Your task to perform on an android device: open app "Roku - Official Remote Control" Image 0: 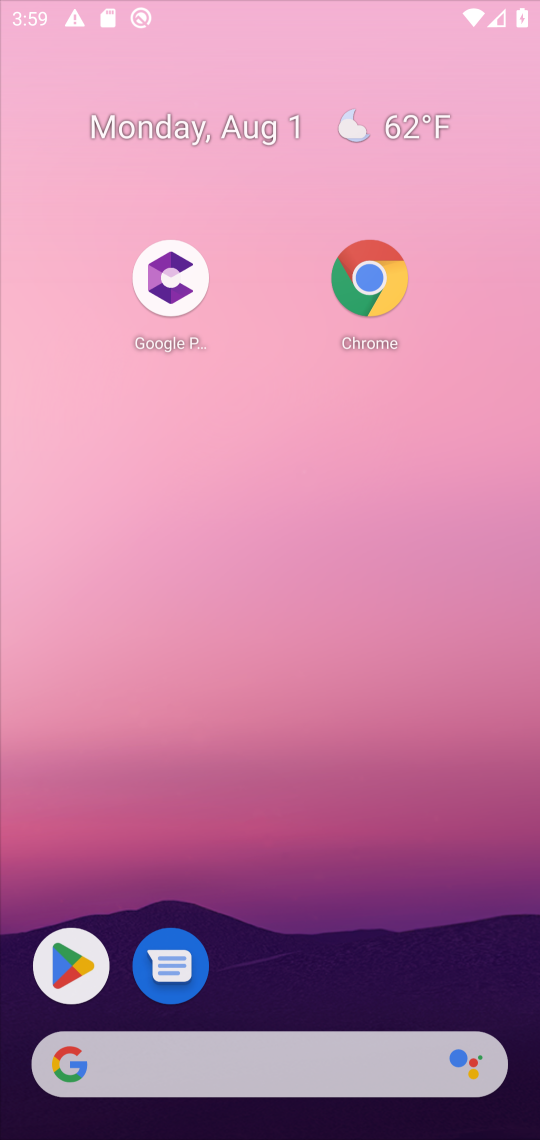
Step 0: click (454, 515)
Your task to perform on an android device: open app "Roku - Official Remote Control" Image 1: 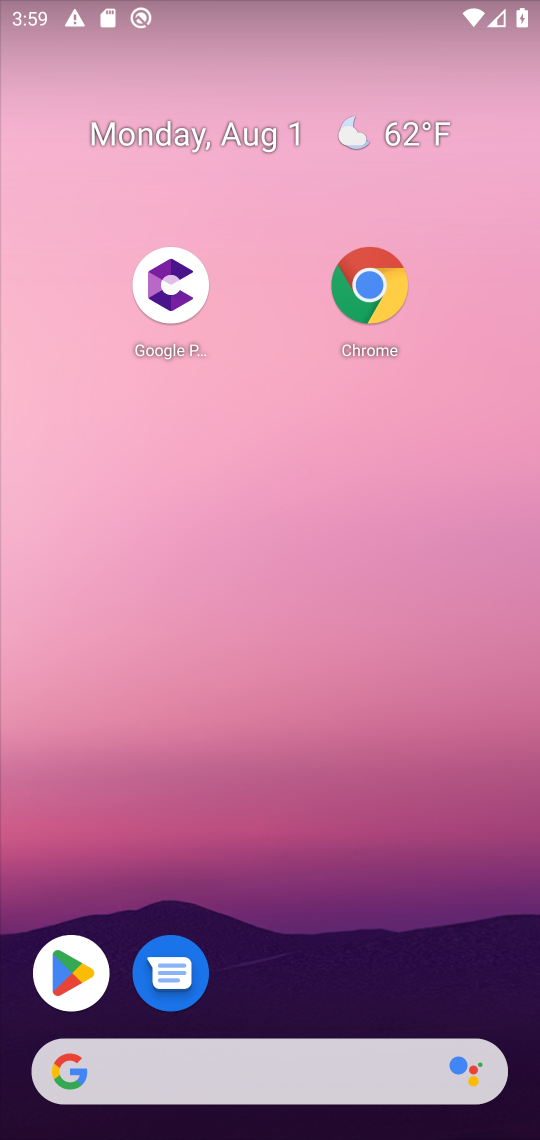
Step 1: drag from (291, 730) to (306, 290)
Your task to perform on an android device: open app "Roku - Official Remote Control" Image 2: 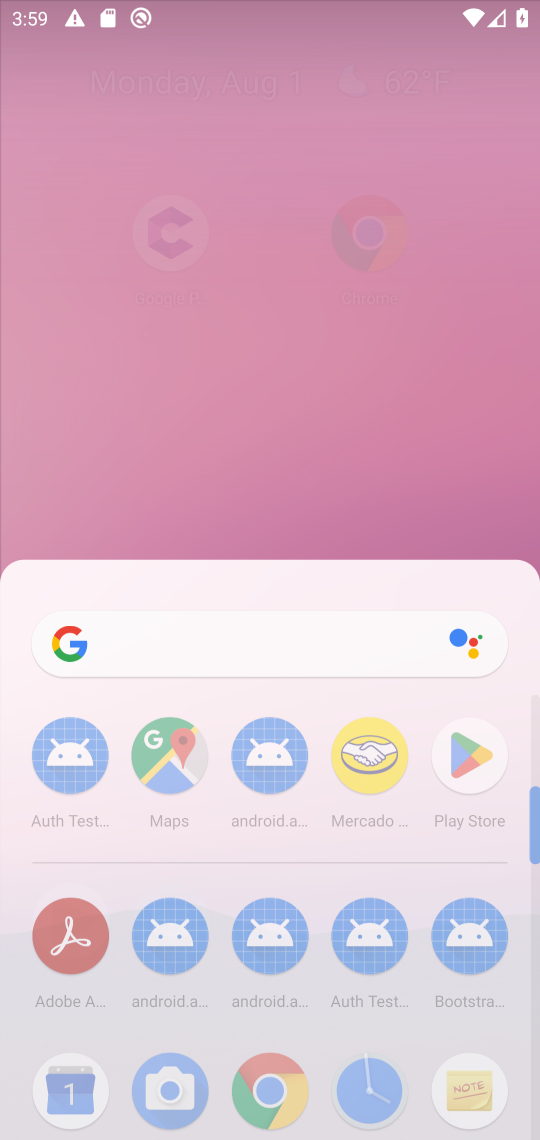
Step 2: click (243, 295)
Your task to perform on an android device: open app "Roku - Official Remote Control" Image 3: 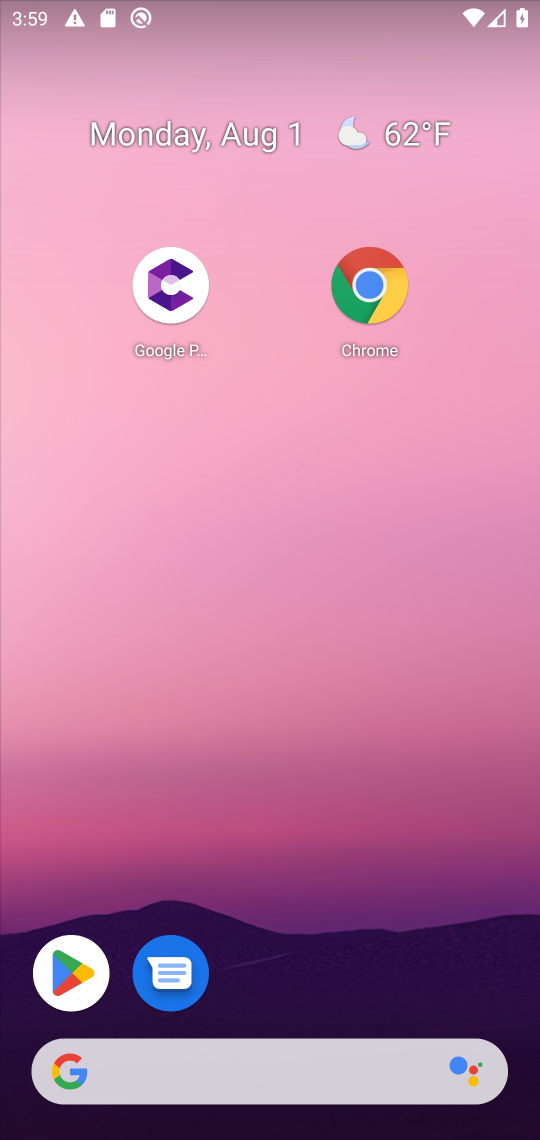
Step 3: drag from (228, 564) to (132, 113)
Your task to perform on an android device: open app "Roku - Official Remote Control" Image 4: 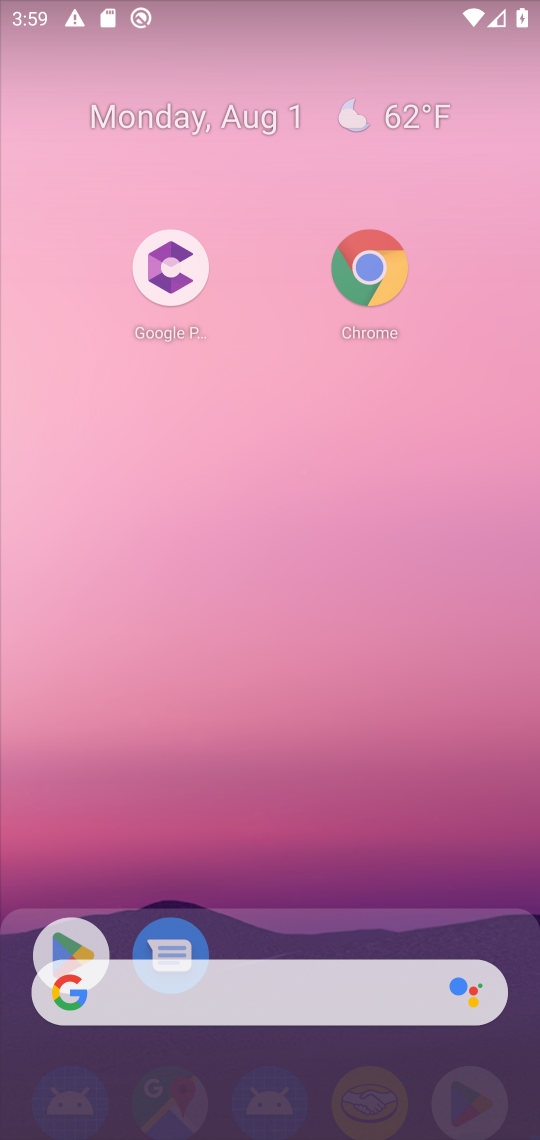
Step 4: drag from (319, 709) to (255, 267)
Your task to perform on an android device: open app "Roku - Official Remote Control" Image 5: 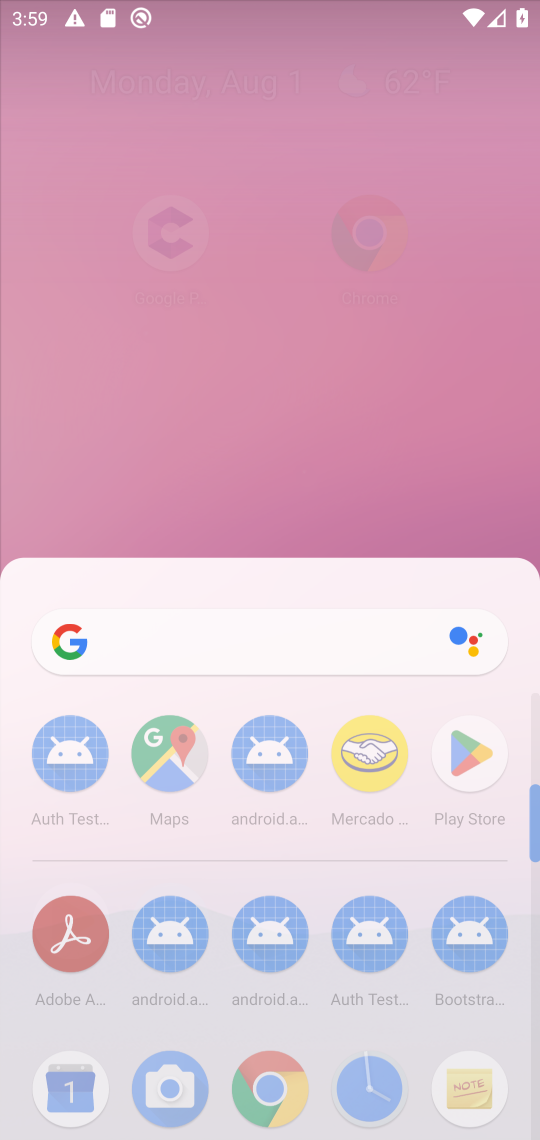
Step 5: drag from (263, 727) to (208, 96)
Your task to perform on an android device: open app "Roku - Official Remote Control" Image 6: 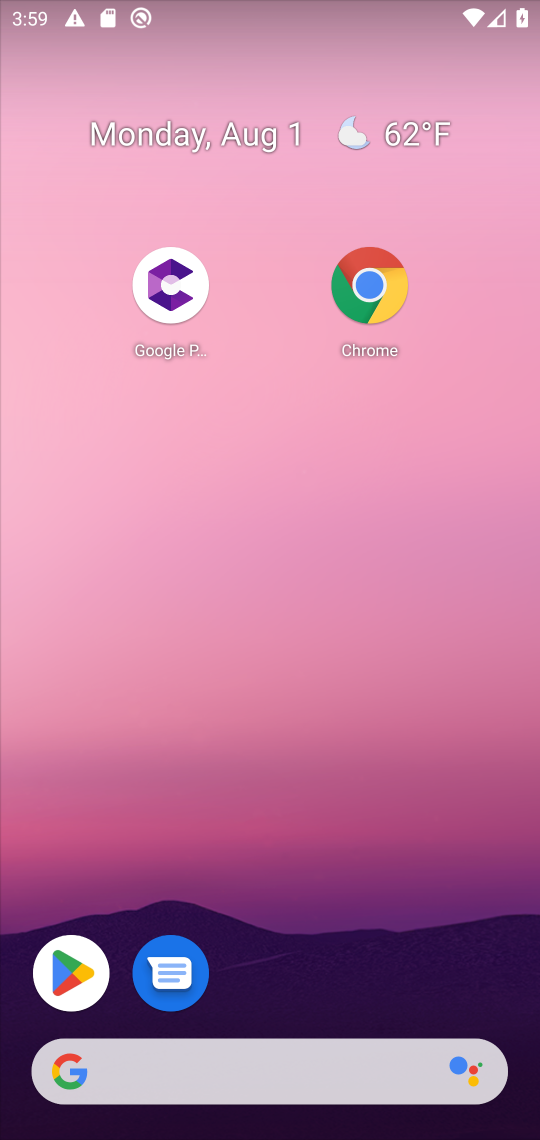
Step 6: drag from (313, 775) to (278, 270)
Your task to perform on an android device: open app "Roku - Official Remote Control" Image 7: 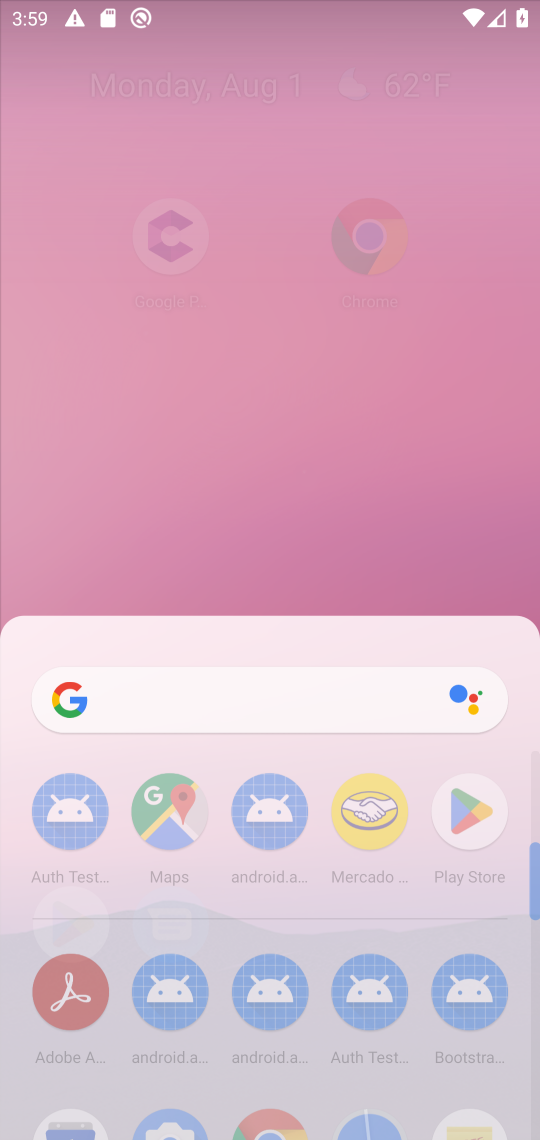
Step 7: drag from (263, 766) to (196, 206)
Your task to perform on an android device: open app "Roku - Official Remote Control" Image 8: 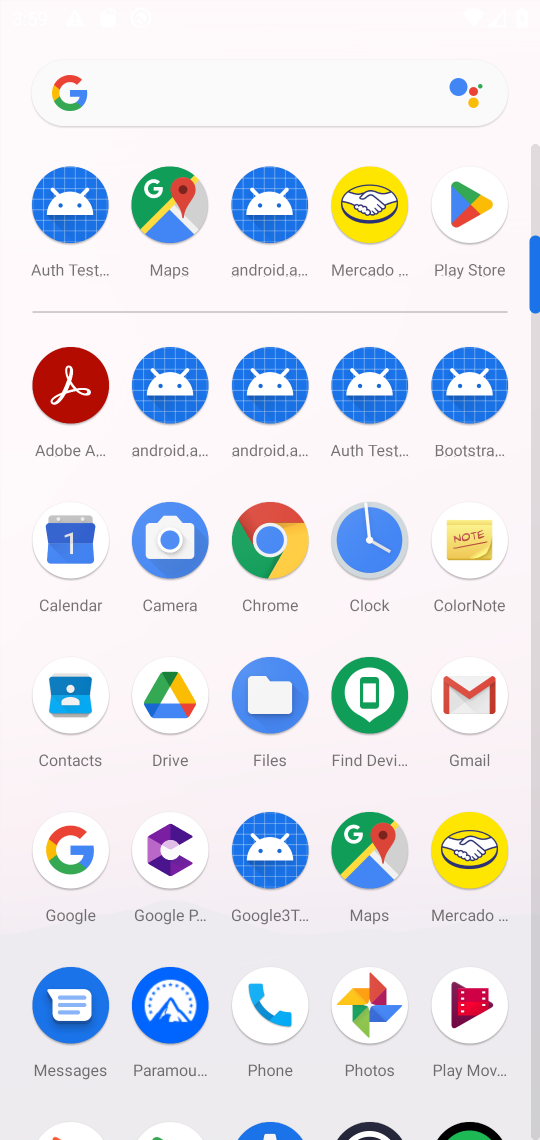
Step 8: drag from (290, 376) to (232, 66)
Your task to perform on an android device: open app "Roku - Official Remote Control" Image 9: 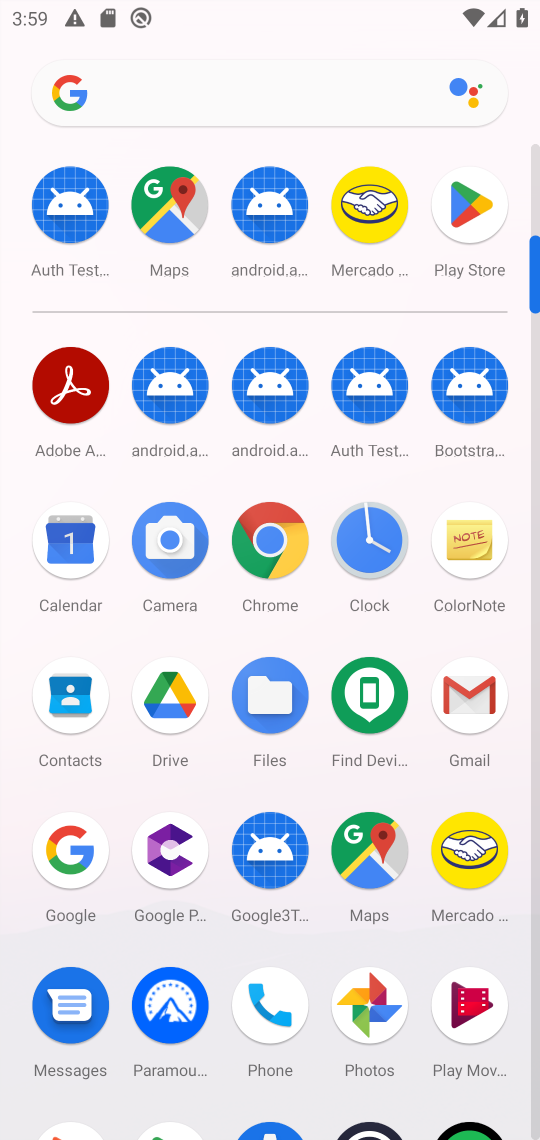
Step 9: click (482, 206)
Your task to perform on an android device: open app "Roku - Official Remote Control" Image 10: 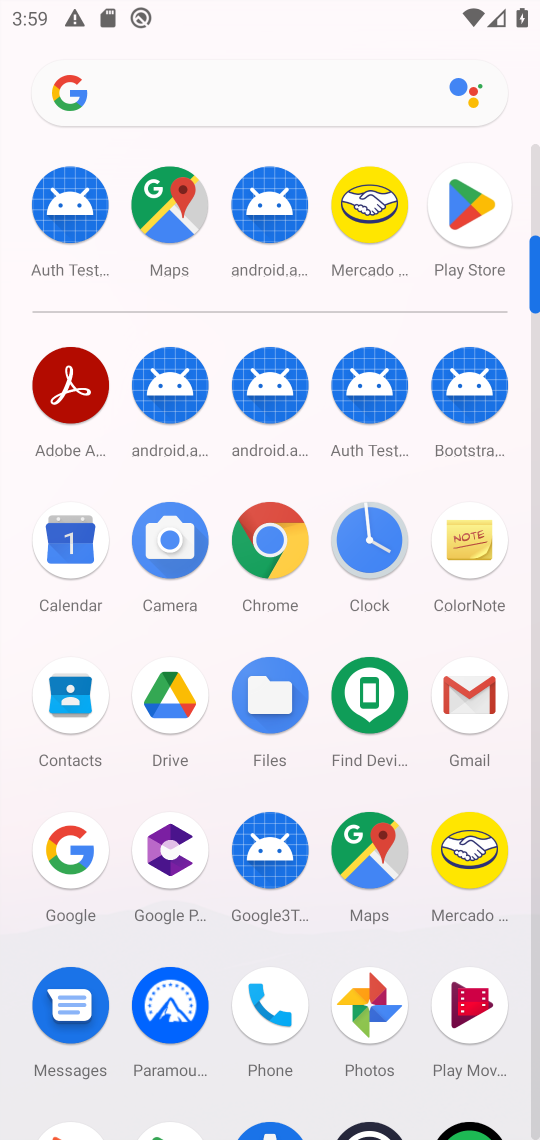
Step 10: click (484, 208)
Your task to perform on an android device: open app "Roku - Official Remote Control" Image 11: 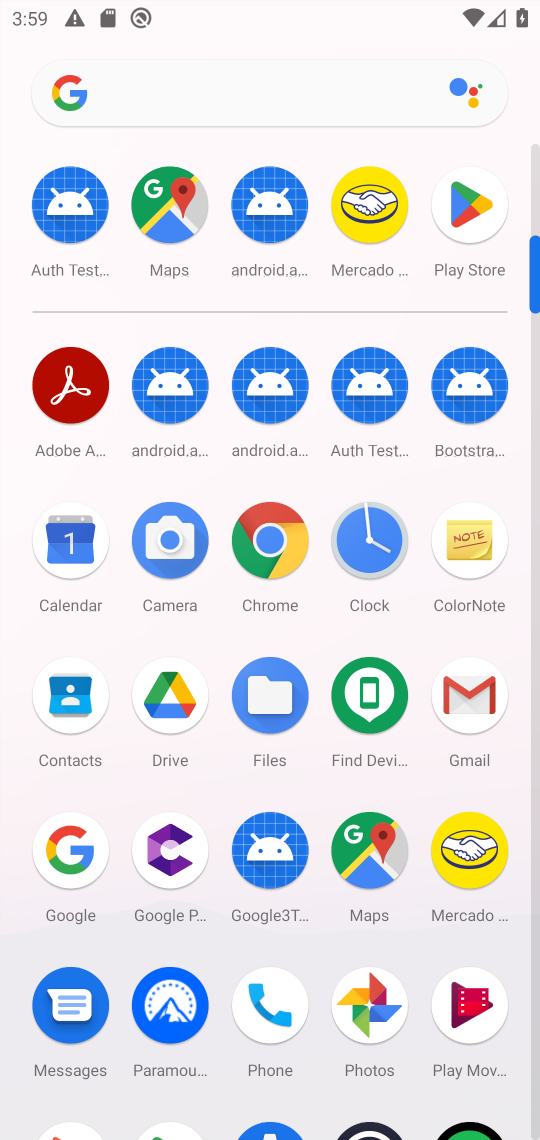
Step 11: click (486, 215)
Your task to perform on an android device: open app "Roku - Official Remote Control" Image 12: 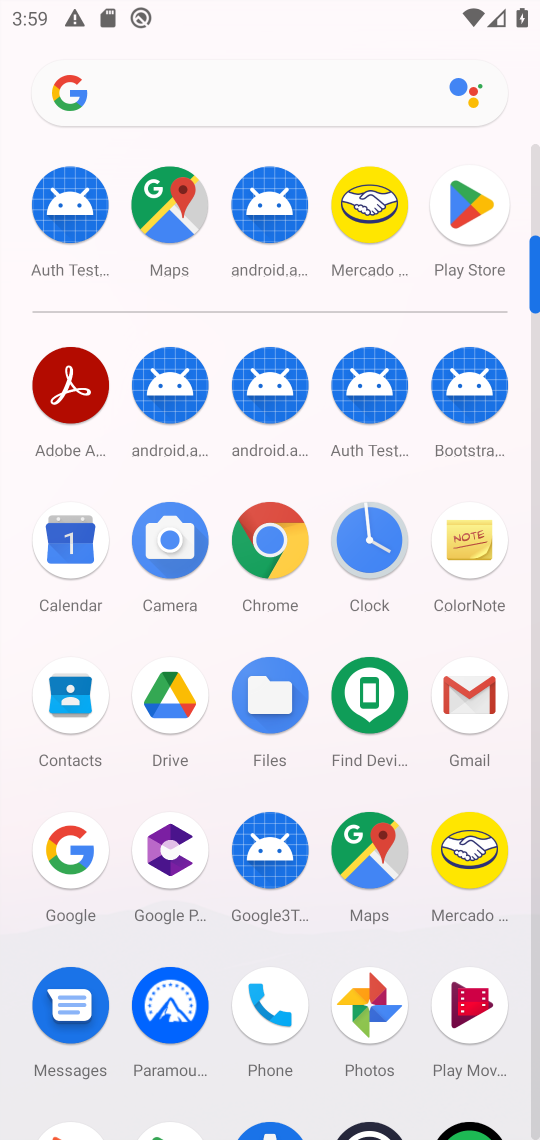
Step 12: click (490, 220)
Your task to perform on an android device: open app "Roku - Official Remote Control" Image 13: 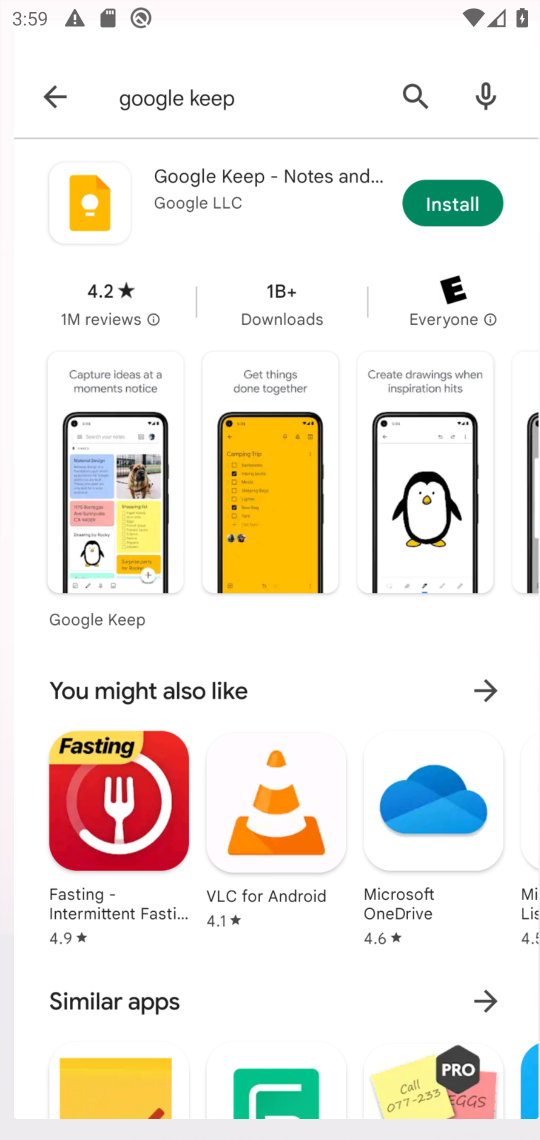
Step 13: click (493, 223)
Your task to perform on an android device: open app "Roku - Official Remote Control" Image 14: 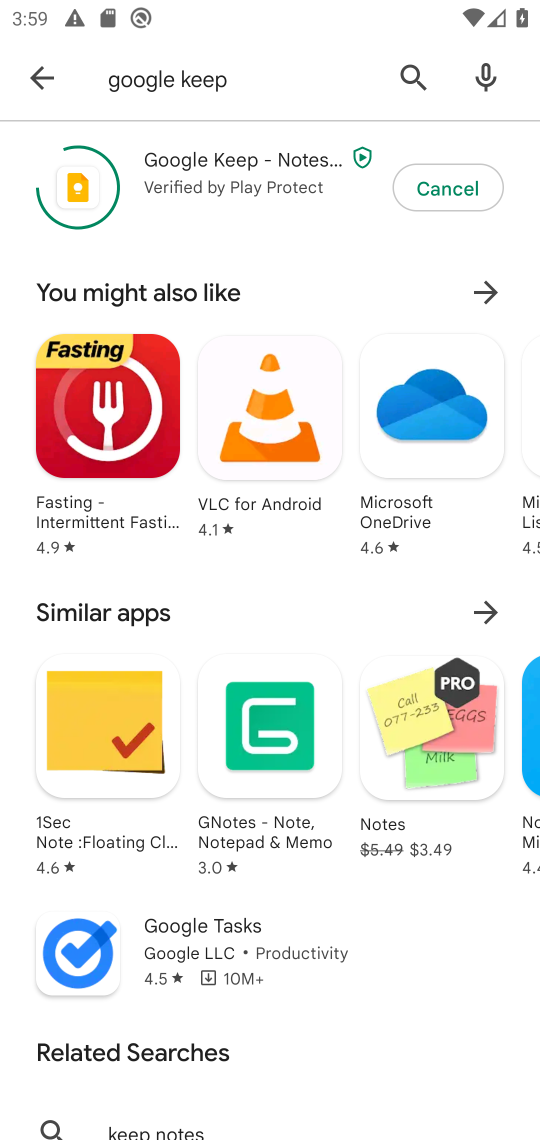
Step 14: click (48, 73)
Your task to perform on an android device: open app "Roku - Official Remote Control" Image 15: 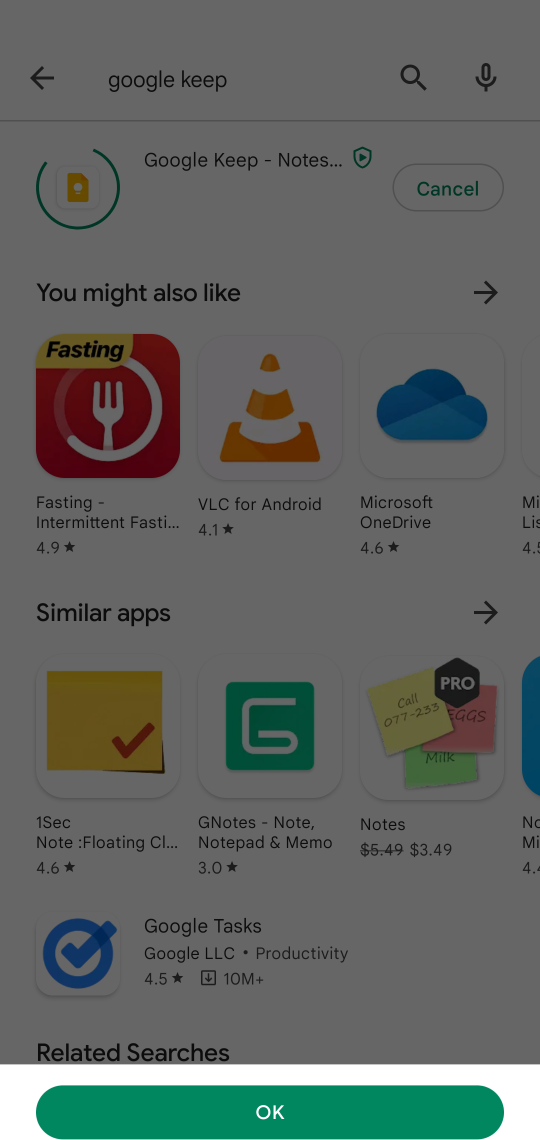
Step 15: click (49, 70)
Your task to perform on an android device: open app "Roku - Official Remote Control" Image 16: 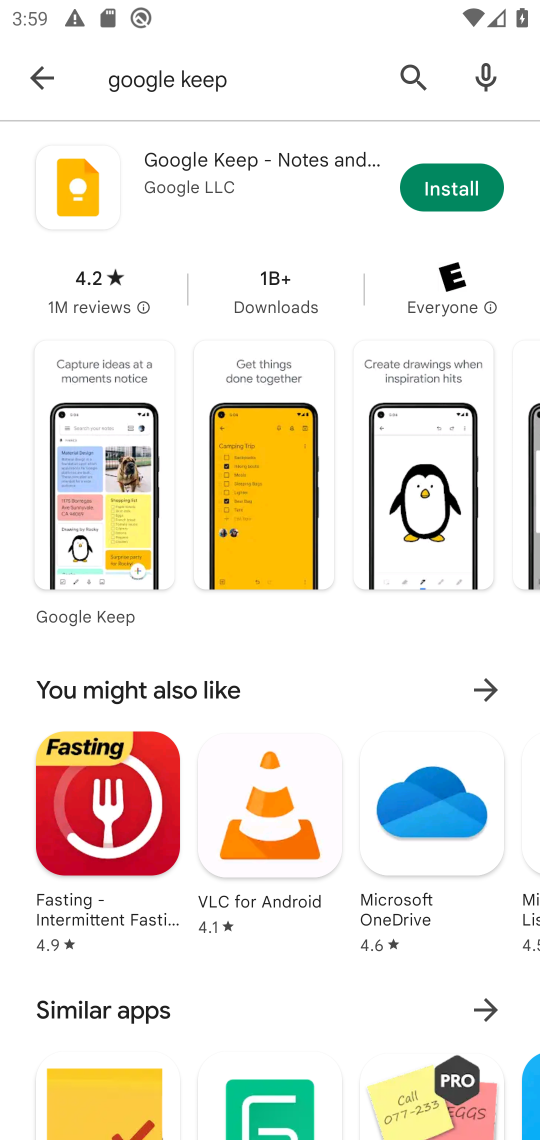
Step 16: click (33, 73)
Your task to perform on an android device: open app "Roku - Official Remote Control" Image 17: 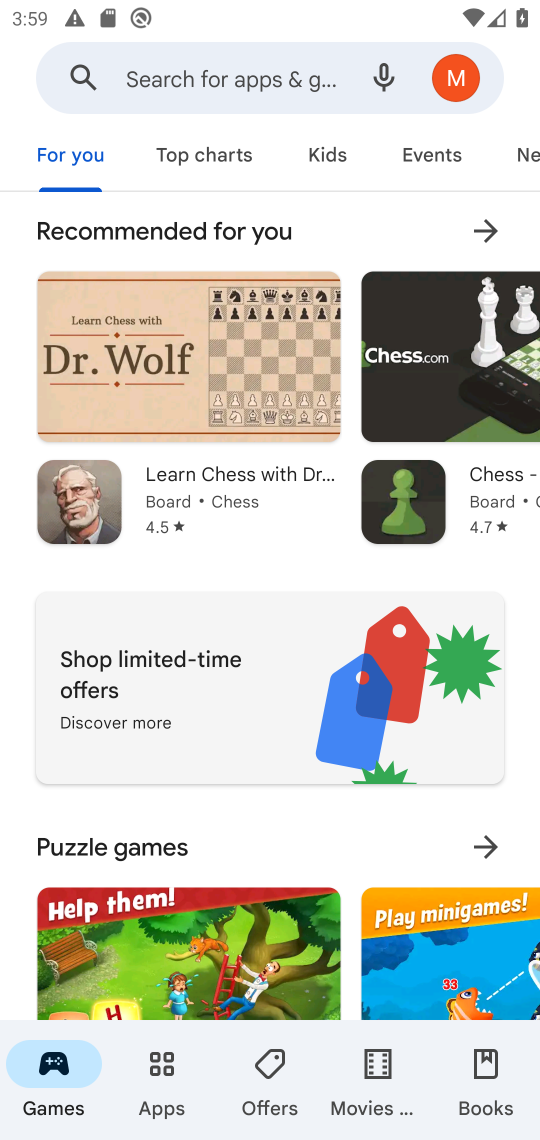
Step 17: click (171, 66)
Your task to perform on an android device: open app "Roku - Official Remote Control" Image 18: 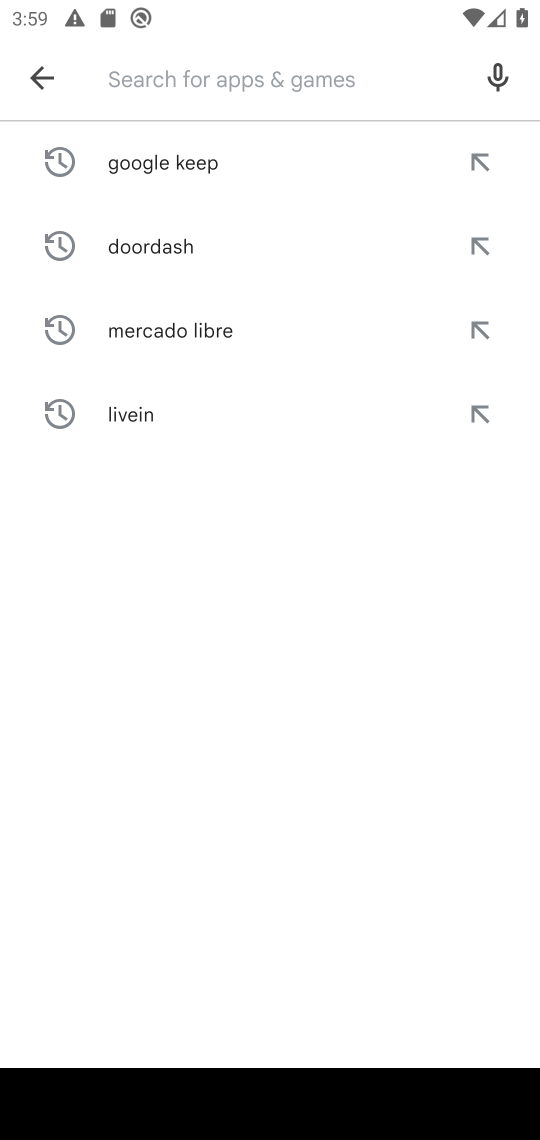
Step 18: type "roku - official "
Your task to perform on an android device: open app "Roku - Official Remote Control" Image 19: 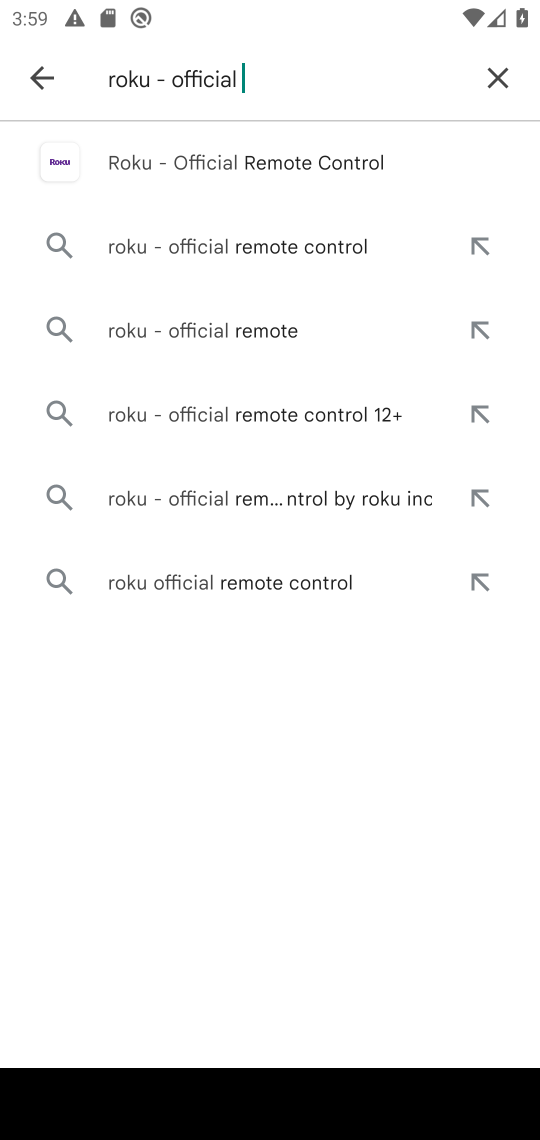
Step 19: click (139, 151)
Your task to perform on an android device: open app "Roku - Official Remote Control" Image 20: 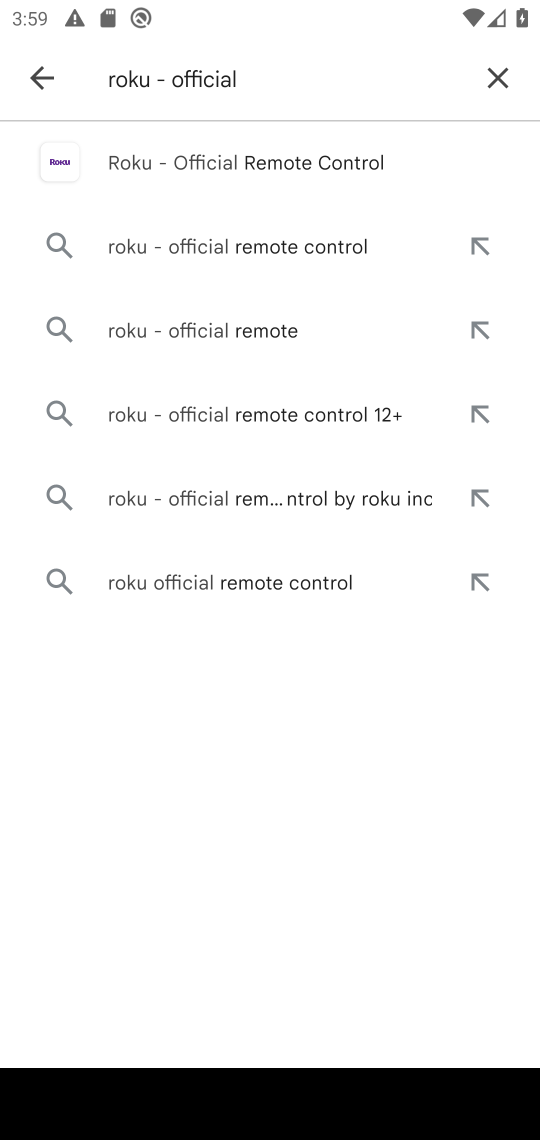
Step 20: click (144, 158)
Your task to perform on an android device: open app "Roku - Official Remote Control" Image 21: 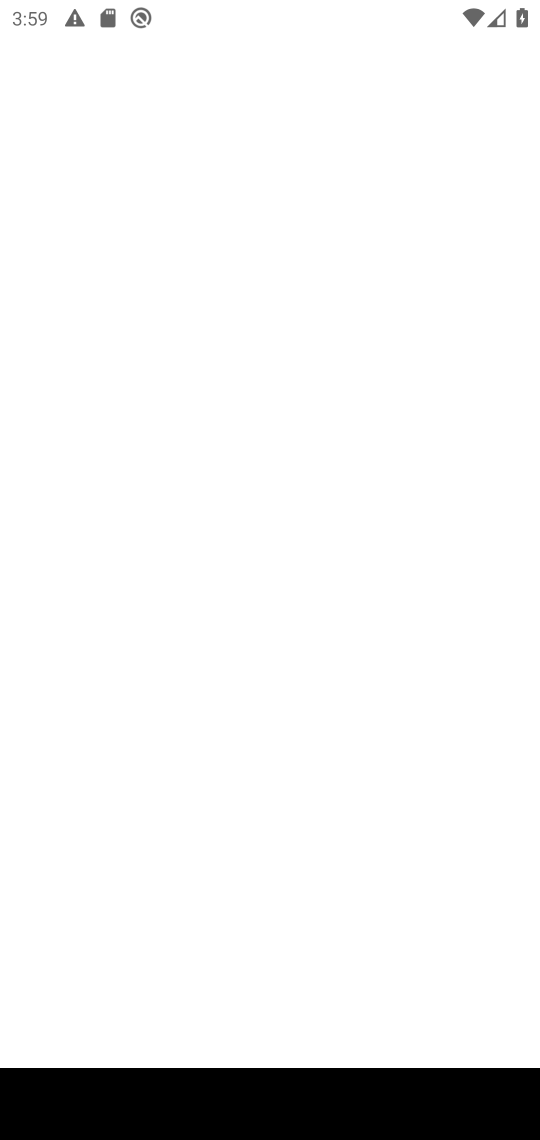
Step 21: click (149, 161)
Your task to perform on an android device: open app "Roku - Official Remote Control" Image 22: 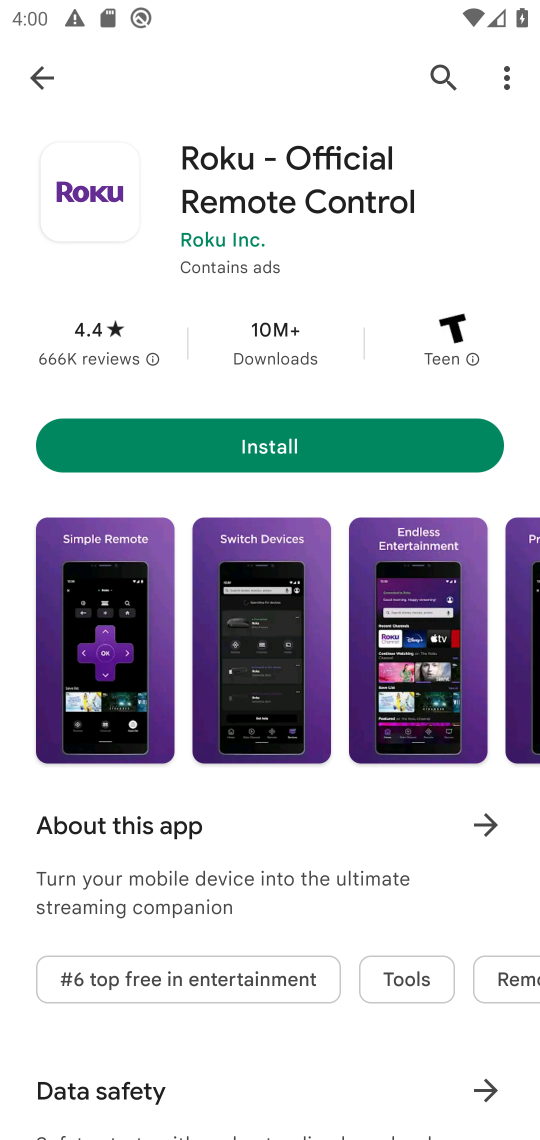
Step 22: click (279, 449)
Your task to perform on an android device: open app "Roku - Official Remote Control" Image 23: 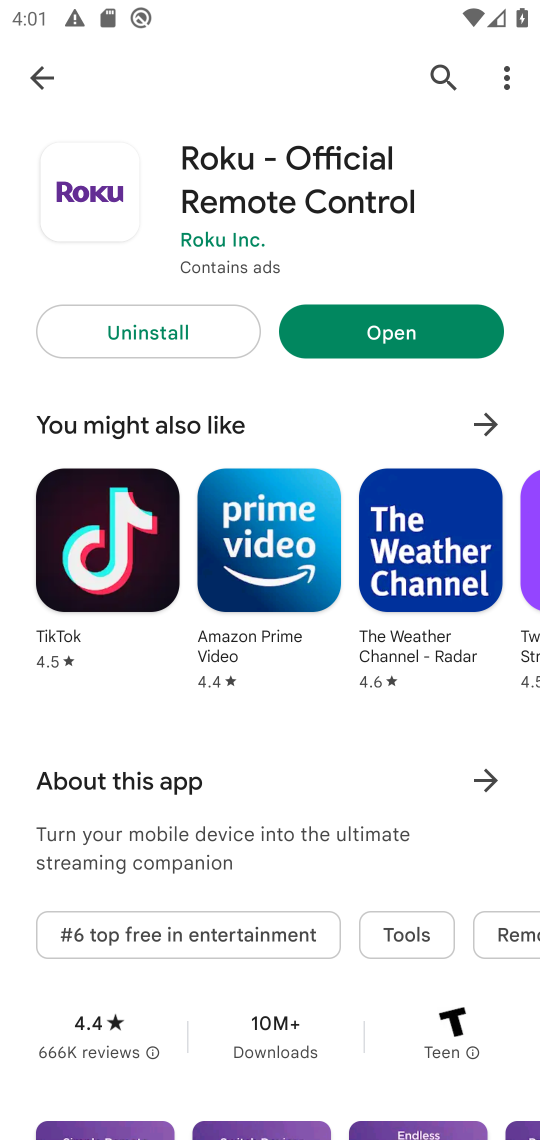
Step 23: click (405, 336)
Your task to perform on an android device: open app "Roku - Official Remote Control" Image 24: 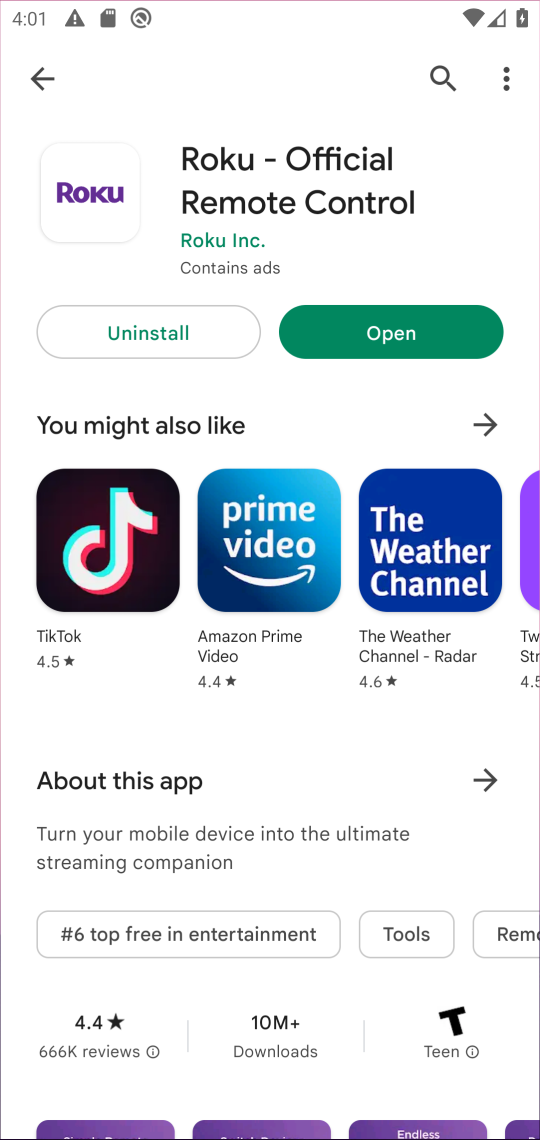
Step 24: click (397, 331)
Your task to perform on an android device: open app "Roku - Official Remote Control" Image 25: 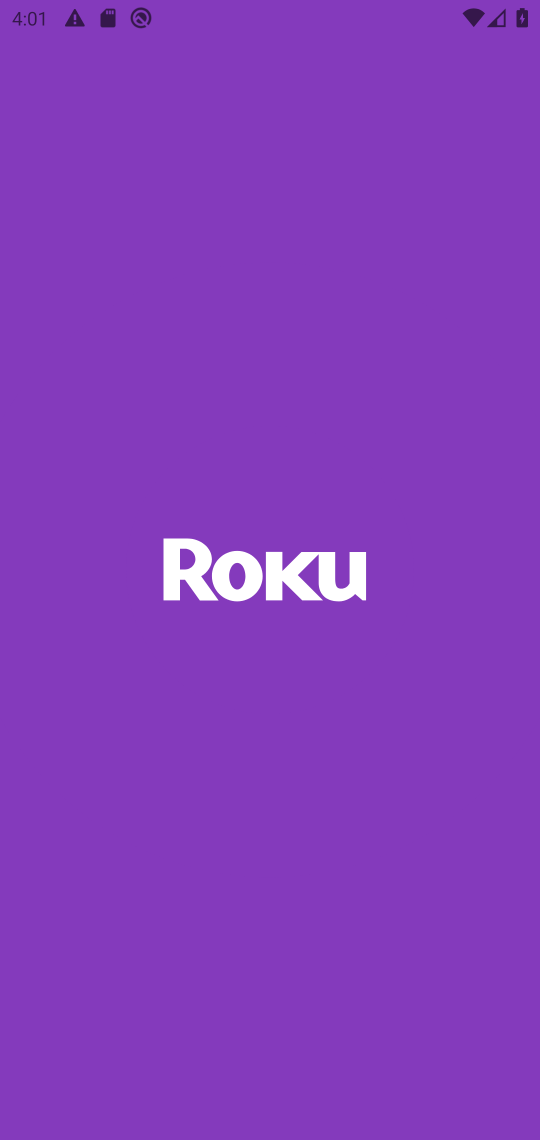
Step 25: click (394, 332)
Your task to perform on an android device: open app "Roku - Official Remote Control" Image 26: 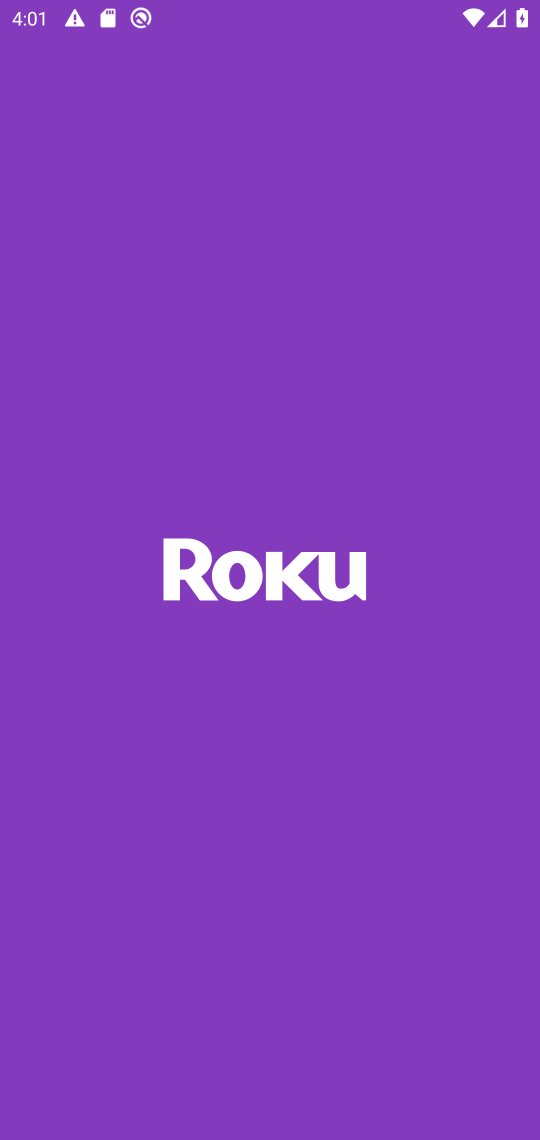
Step 26: task complete